Your task to perform on an android device: Go to Maps Image 0: 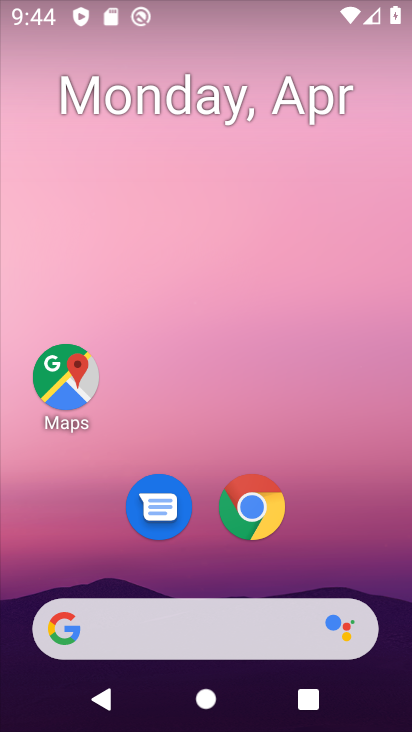
Step 0: click (55, 371)
Your task to perform on an android device: Go to Maps Image 1: 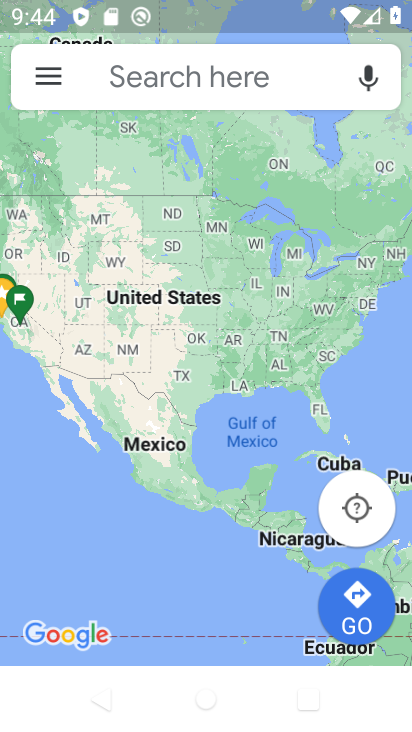
Step 1: task complete